Your task to perform on an android device: toggle pop-ups in chrome Image 0: 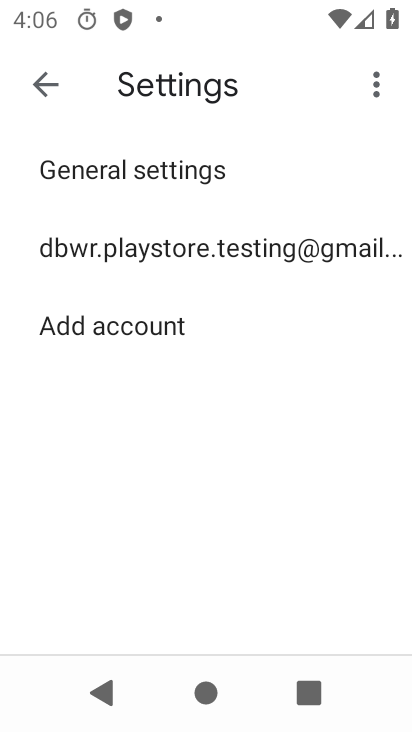
Step 0: press home button
Your task to perform on an android device: toggle pop-ups in chrome Image 1: 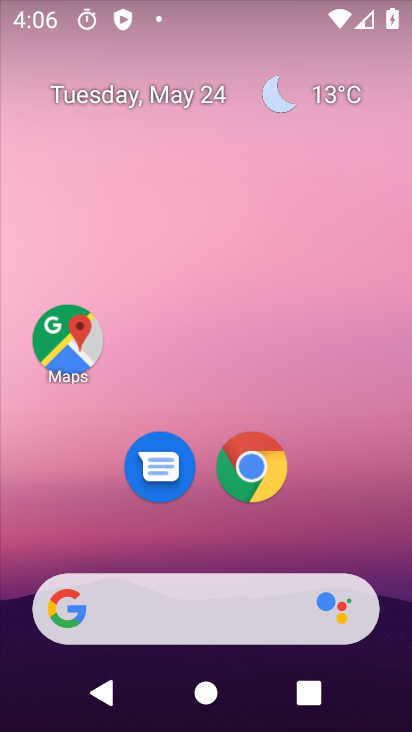
Step 1: drag from (315, 516) to (318, 146)
Your task to perform on an android device: toggle pop-ups in chrome Image 2: 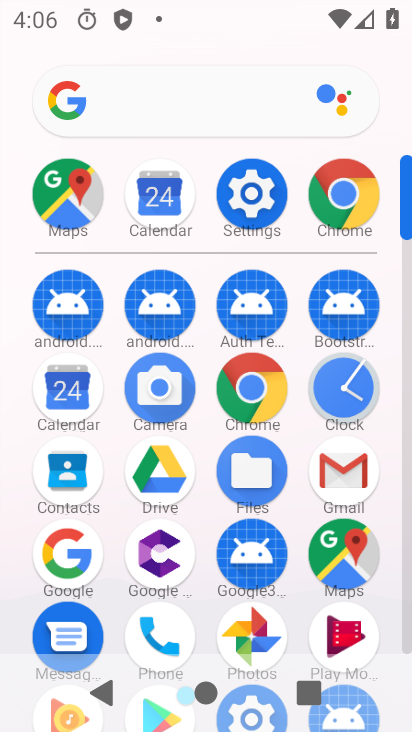
Step 2: click (245, 386)
Your task to perform on an android device: toggle pop-ups in chrome Image 3: 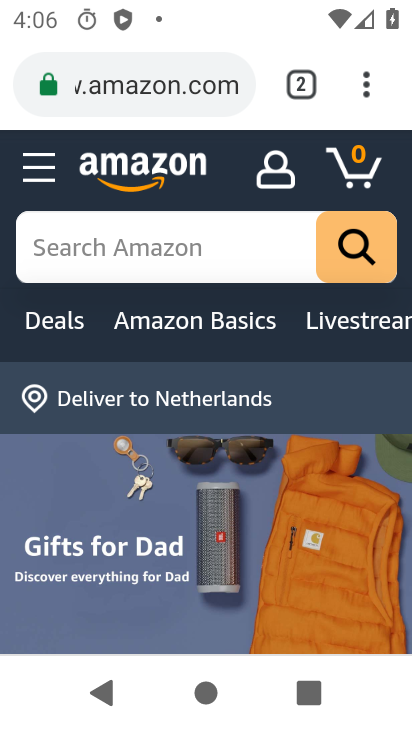
Step 3: click (365, 77)
Your task to perform on an android device: toggle pop-ups in chrome Image 4: 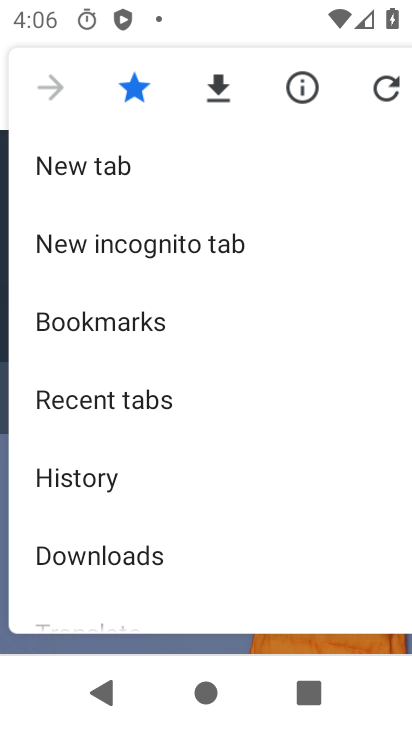
Step 4: drag from (188, 532) to (226, 154)
Your task to perform on an android device: toggle pop-ups in chrome Image 5: 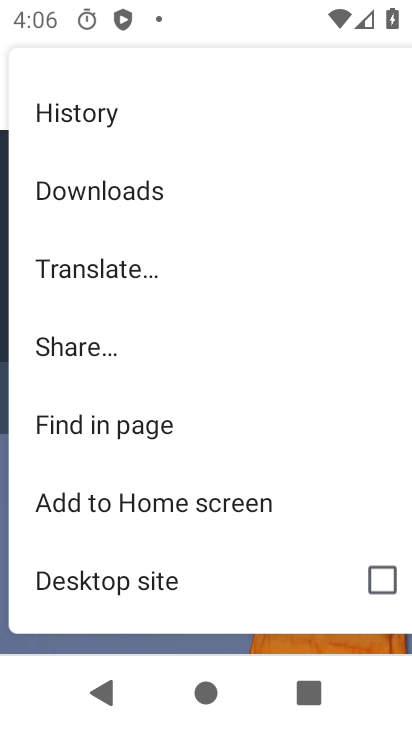
Step 5: drag from (131, 521) to (221, 163)
Your task to perform on an android device: toggle pop-ups in chrome Image 6: 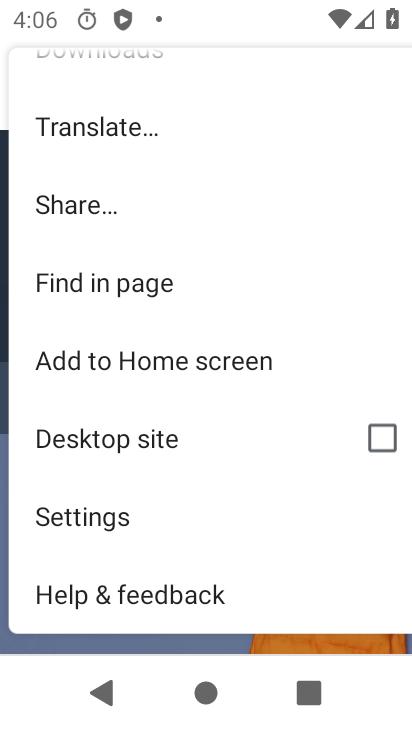
Step 6: click (95, 506)
Your task to perform on an android device: toggle pop-ups in chrome Image 7: 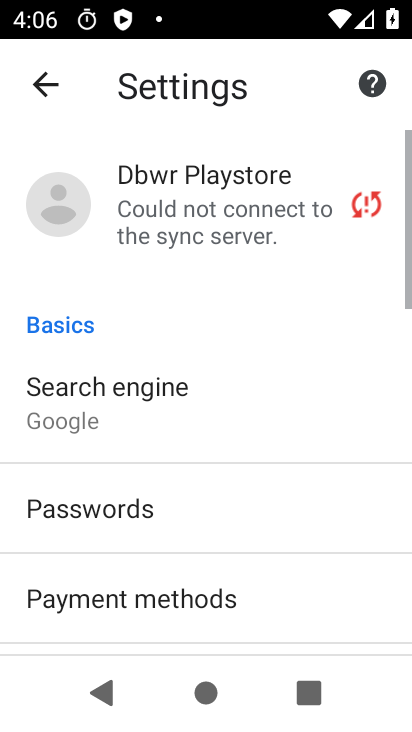
Step 7: drag from (141, 576) to (212, 161)
Your task to perform on an android device: toggle pop-ups in chrome Image 8: 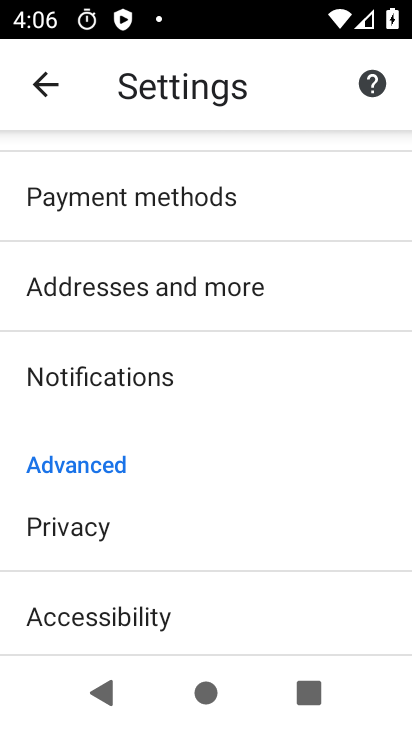
Step 8: drag from (158, 502) to (223, 195)
Your task to perform on an android device: toggle pop-ups in chrome Image 9: 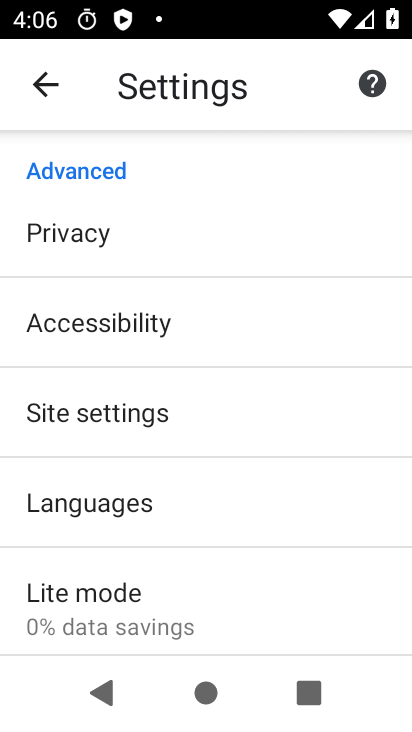
Step 9: drag from (187, 538) to (209, 430)
Your task to perform on an android device: toggle pop-ups in chrome Image 10: 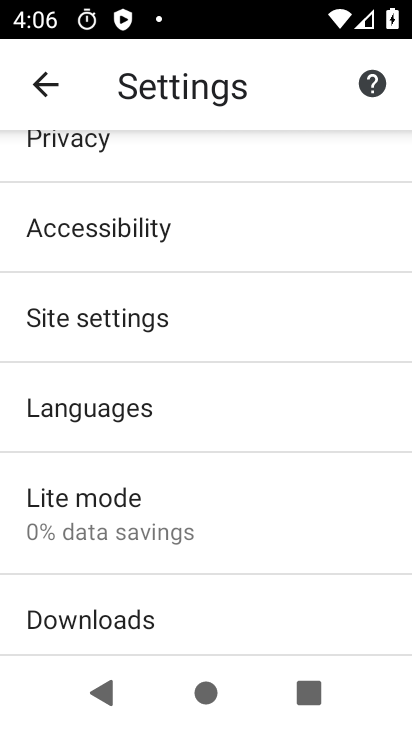
Step 10: click (127, 327)
Your task to perform on an android device: toggle pop-ups in chrome Image 11: 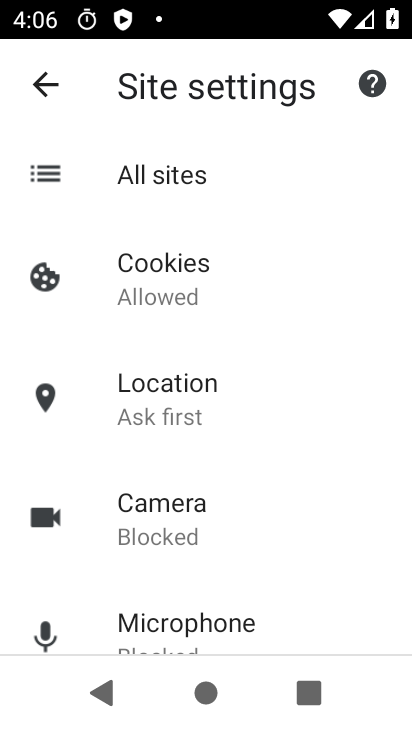
Step 11: drag from (273, 539) to (298, 222)
Your task to perform on an android device: toggle pop-ups in chrome Image 12: 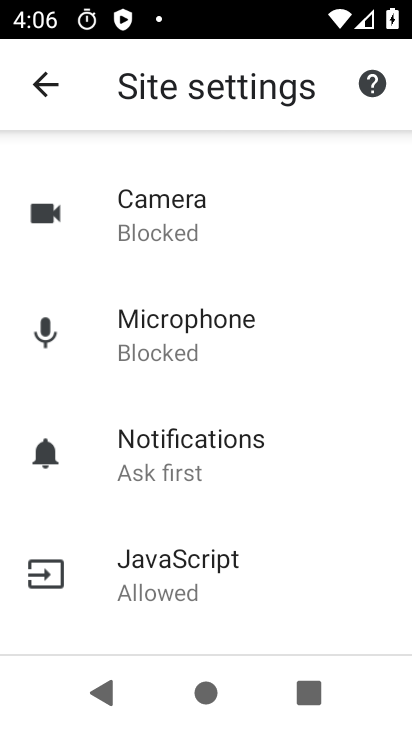
Step 12: drag from (243, 559) to (279, 265)
Your task to perform on an android device: toggle pop-ups in chrome Image 13: 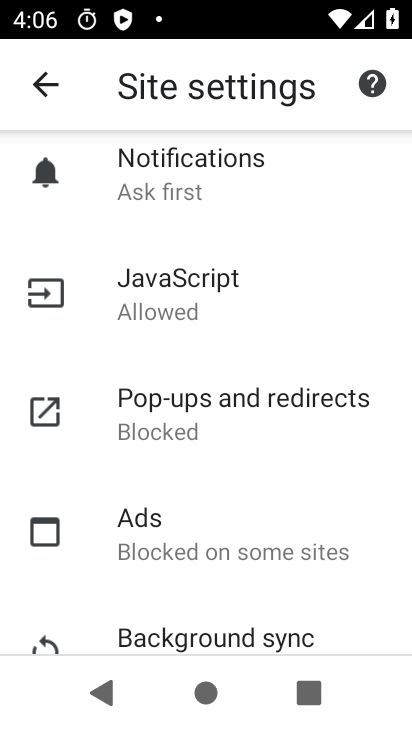
Step 13: click (204, 424)
Your task to perform on an android device: toggle pop-ups in chrome Image 14: 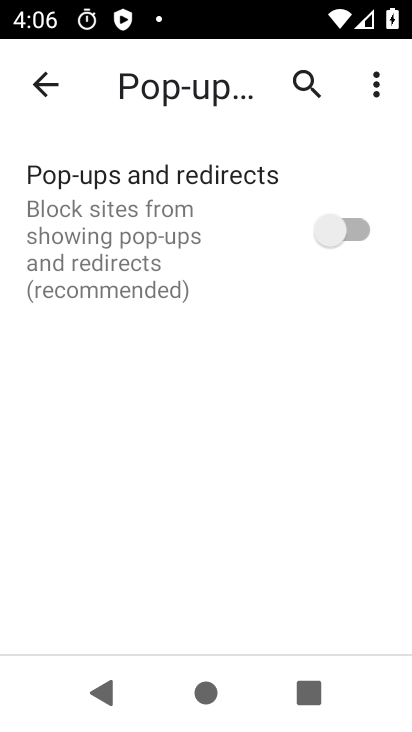
Step 14: click (352, 215)
Your task to perform on an android device: toggle pop-ups in chrome Image 15: 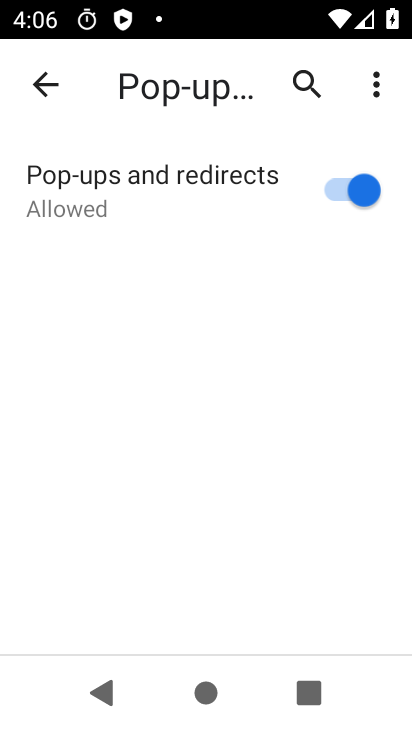
Step 15: task complete